Your task to perform on an android device: find which apps use the phone's location Image 0: 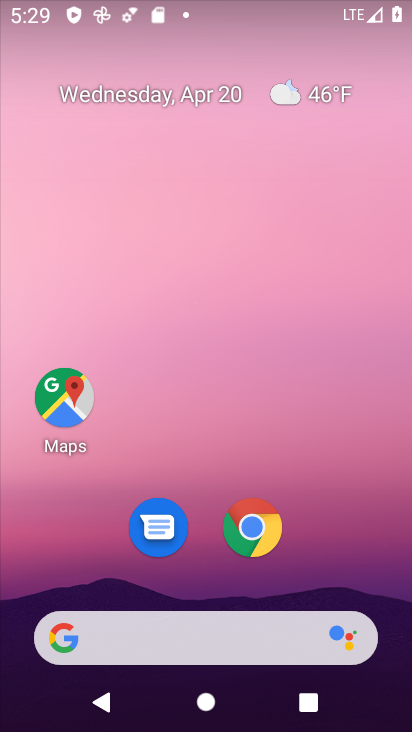
Step 0: drag from (210, 582) to (207, 97)
Your task to perform on an android device: find which apps use the phone's location Image 1: 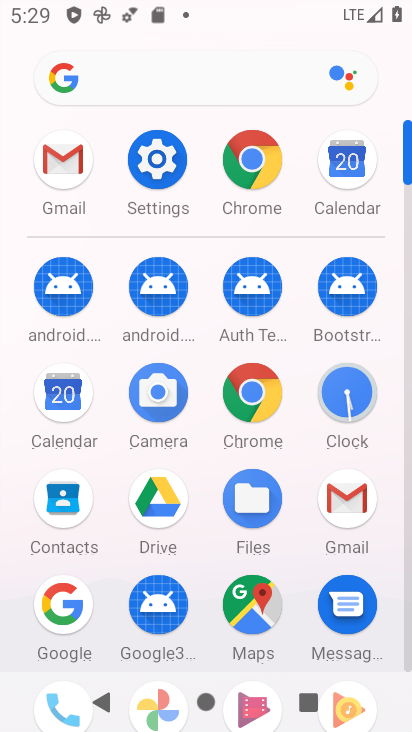
Step 1: click (157, 176)
Your task to perform on an android device: find which apps use the phone's location Image 2: 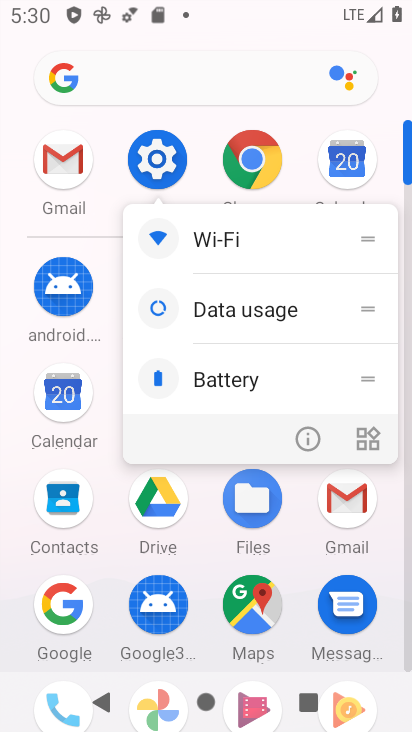
Step 2: click (155, 161)
Your task to perform on an android device: find which apps use the phone's location Image 3: 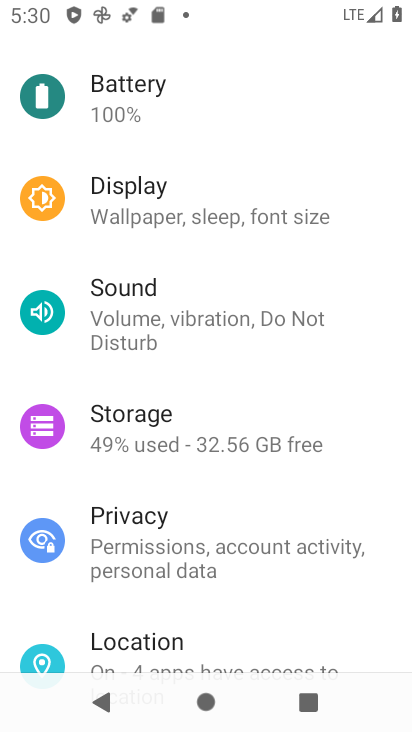
Step 3: click (166, 645)
Your task to perform on an android device: find which apps use the phone's location Image 4: 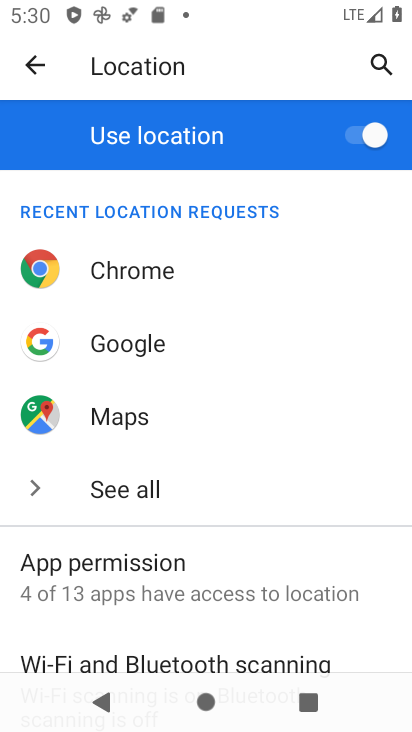
Step 4: drag from (208, 638) to (226, 275)
Your task to perform on an android device: find which apps use the phone's location Image 5: 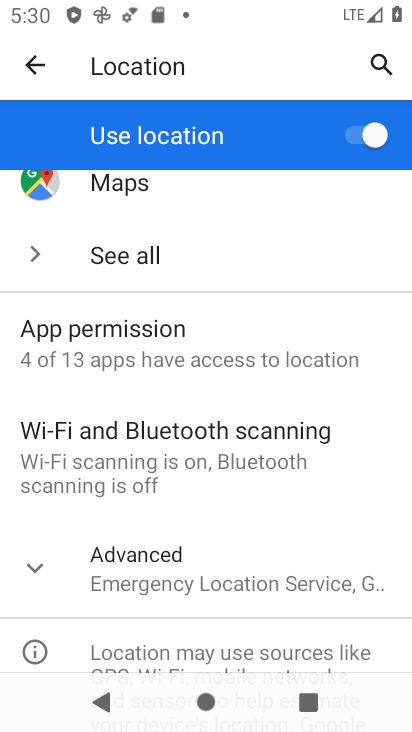
Step 5: click (175, 343)
Your task to perform on an android device: find which apps use the phone's location Image 6: 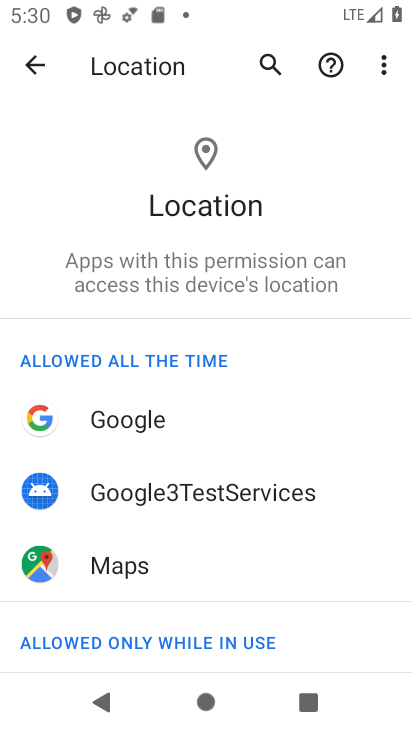
Step 6: task complete